Your task to perform on an android device: Go to location settings Image 0: 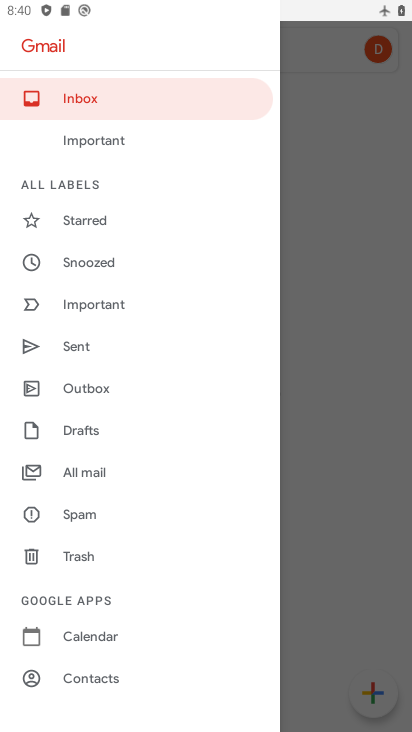
Step 0: press home button
Your task to perform on an android device: Go to location settings Image 1: 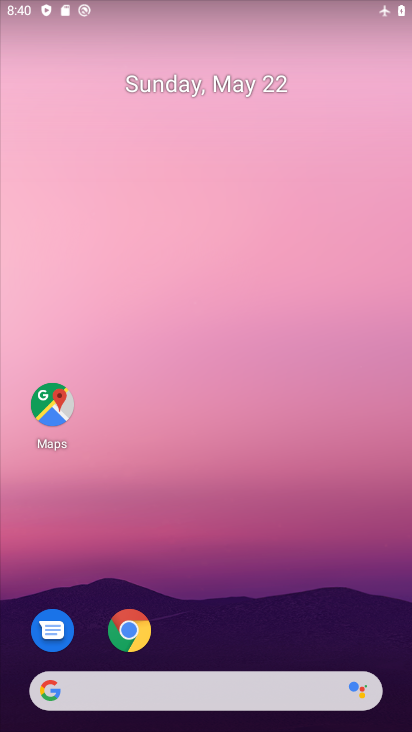
Step 1: drag from (402, 700) to (350, 135)
Your task to perform on an android device: Go to location settings Image 2: 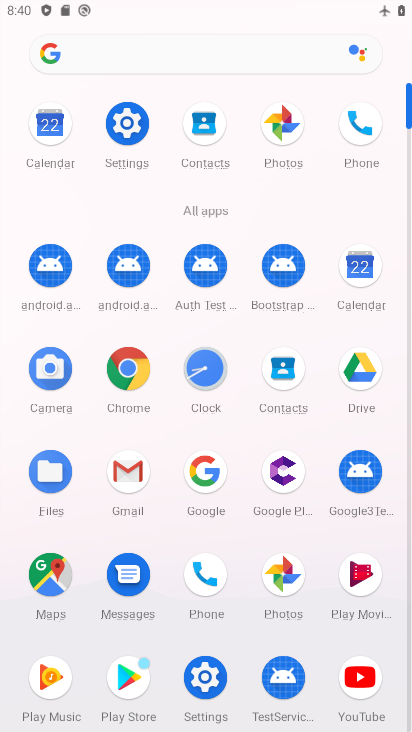
Step 2: click (202, 670)
Your task to perform on an android device: Go to location settings Image 3: 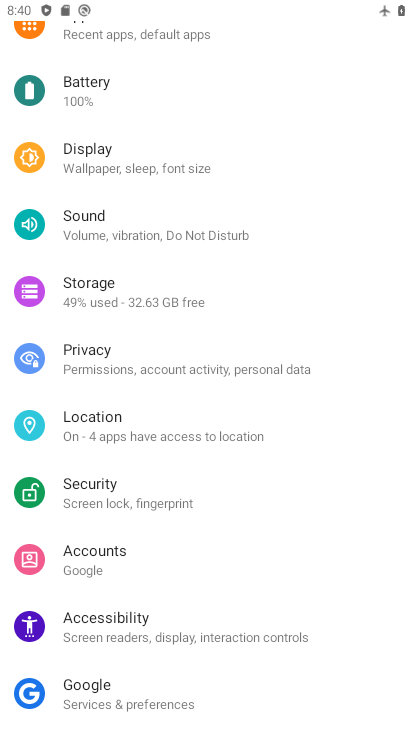
Step 3: click (99, 424)
Your task to perform on an android device: Go to location settings Image 4: 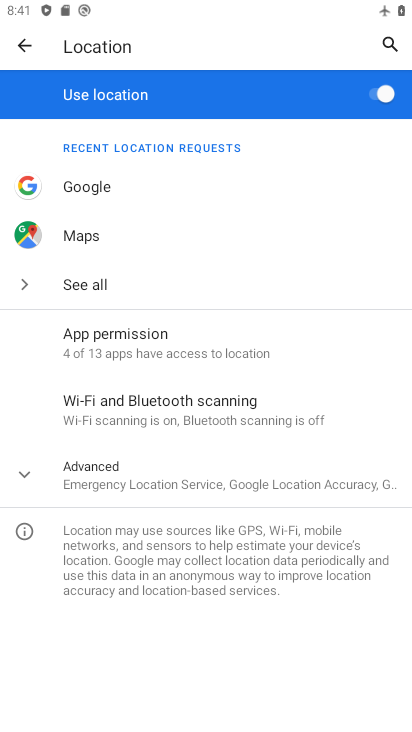
Step 4: task complete